Your task to perform on an android device: Open the calendar app, open the side menu, and click the "Day" option Image 0: 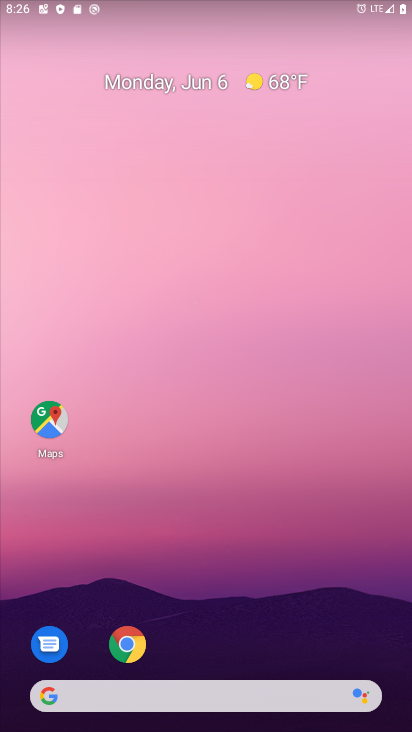
Step 0: drag from (194, 694) to (231, 179)
Your task to perform on an android device: Open the calendar app, open the side menu, and click the "Day" option Image 1: 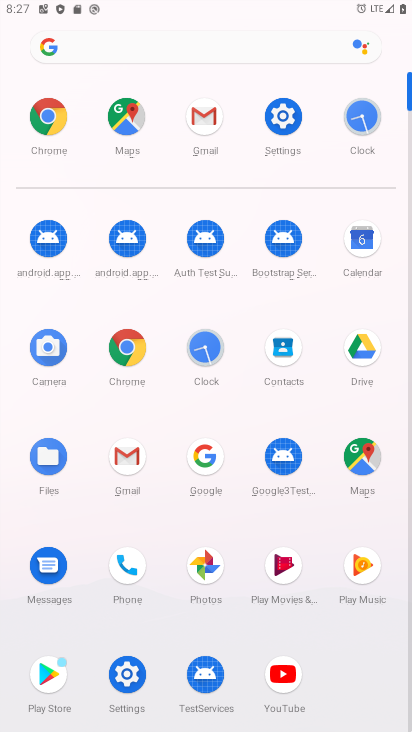
Step 1: click (383, 238)
Your task to perform on an android device: Open the calendar app, open the side menu, and click the "Day" option Image 2: 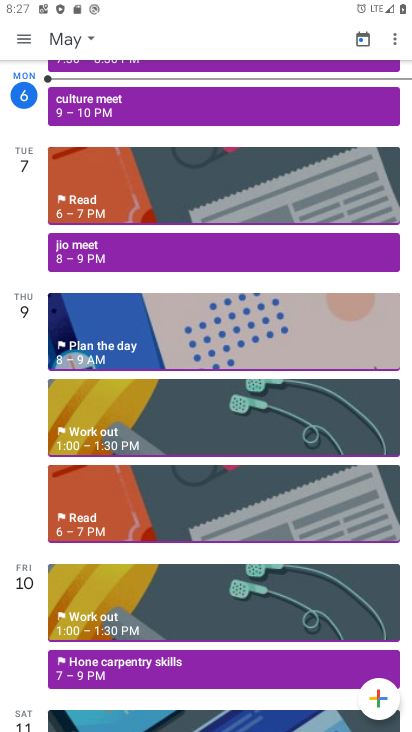
Step 2: click (32, 37)
Your task to perform on an android device: Open the calendar app, open the side menu, and click the "Day" option Image 3: 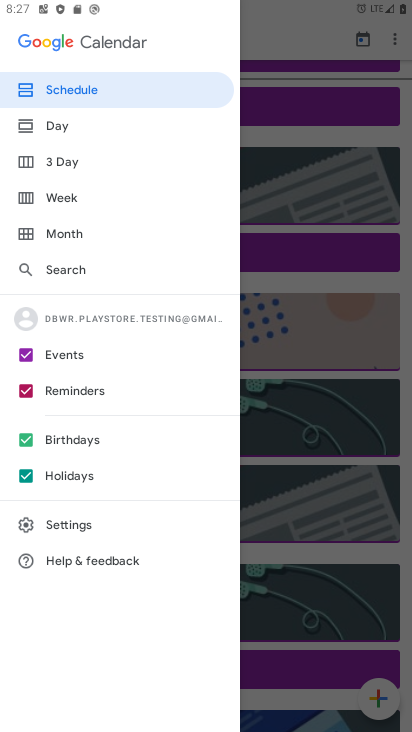
Step 3: click (95, 131)
Your task to perform on an android device: Open the calendar app, open the side menu, and click the "Day" option Image 4: 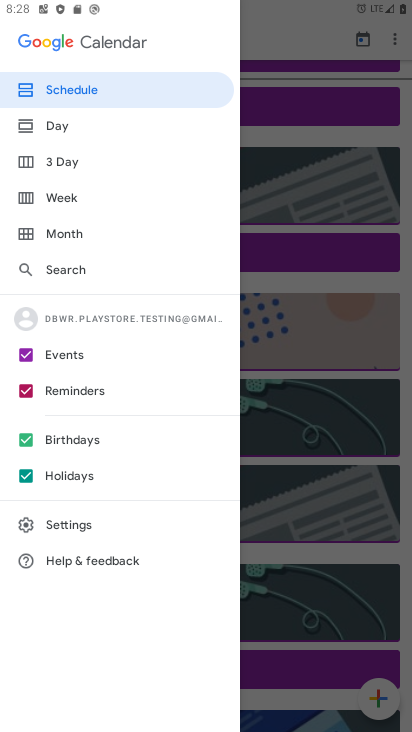
Step 4: click (116, 128)
Your task to perform on an android device: Open the calendar app, open the side menu, and click the "Day" option Image 5: 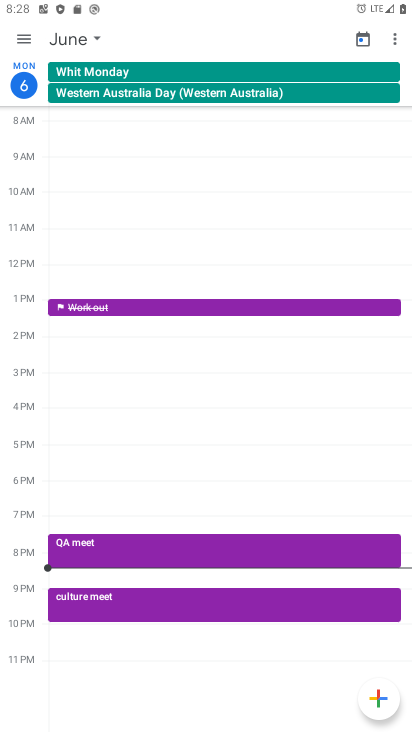
Step 5: task complete